Your task to perform on an android device: Show me popular videos on Youtube Image 0: 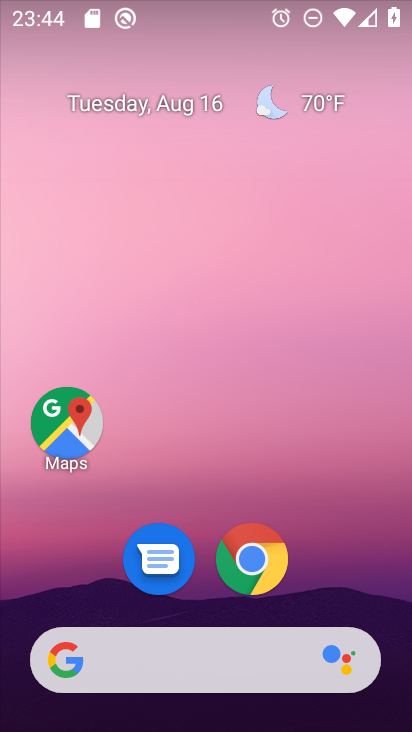
Step 0: drag from (174, 665) to (236, 176)
Your task to perform on an android device: Show me popular videos on Youtube Image 1: 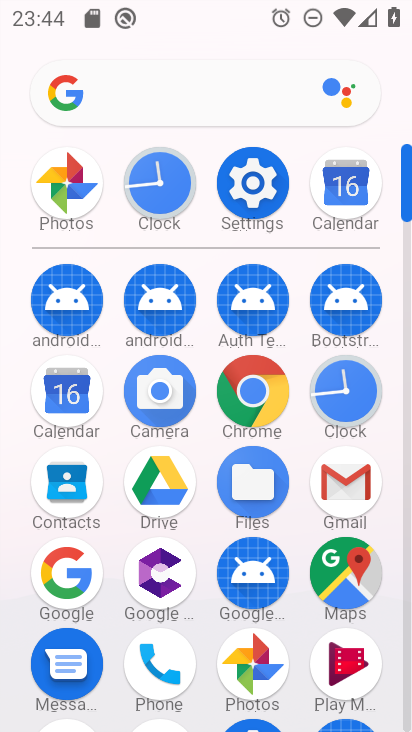
Step 1: drag from (201, 619) to (212, 290)
Your task to perform on an android device: Show me popular videos on Youtube Image 2: 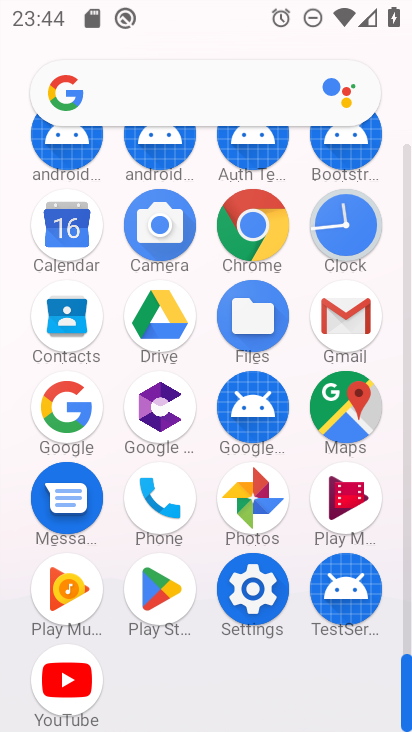
Step 2: click (67, 680)
Your task to perform on an android device: Show me popular videos on Youtube Image 3: 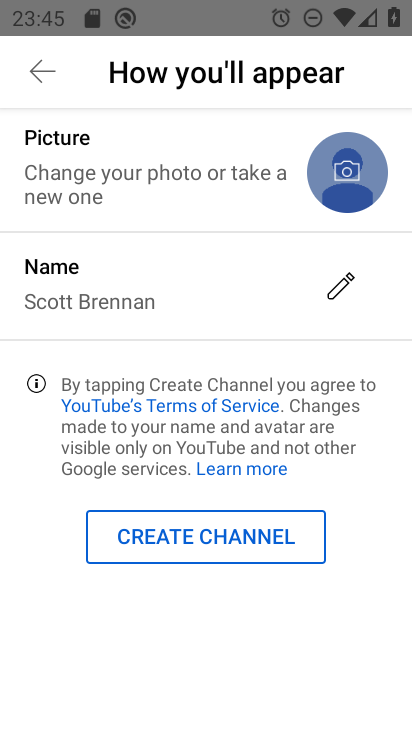
Step 3: press back button
Your task to perform on an android device: Show me popular videos on Youtube Image 4: 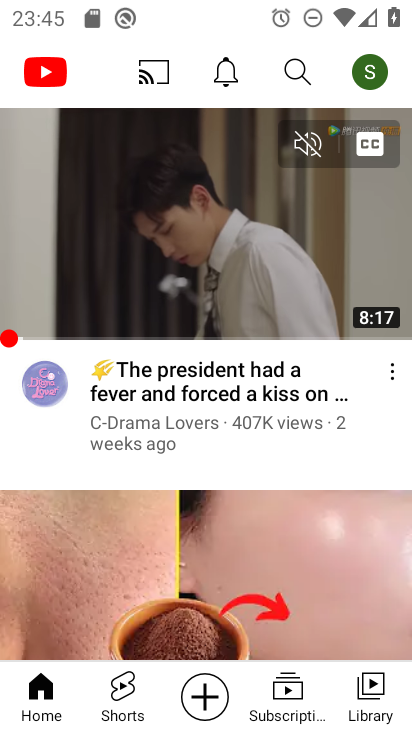
Step 4: click (291, 77)
Your task to perform on an android device: Show me popular videos on Youtube Image 5: 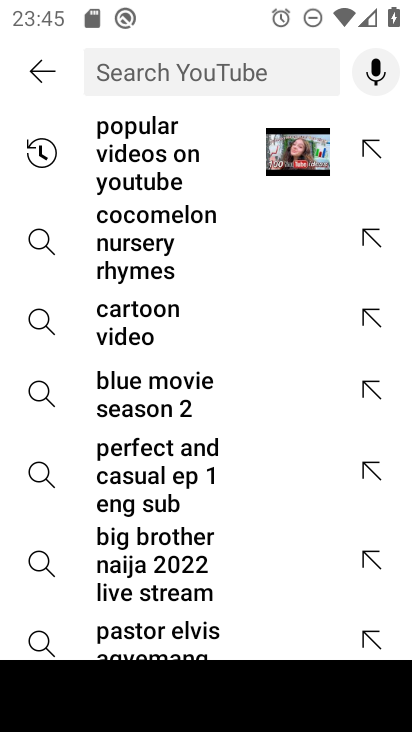
Step 5: click (150, 164)
Your task to perform on an android device: Show me popular videos on Youtube Image 6: 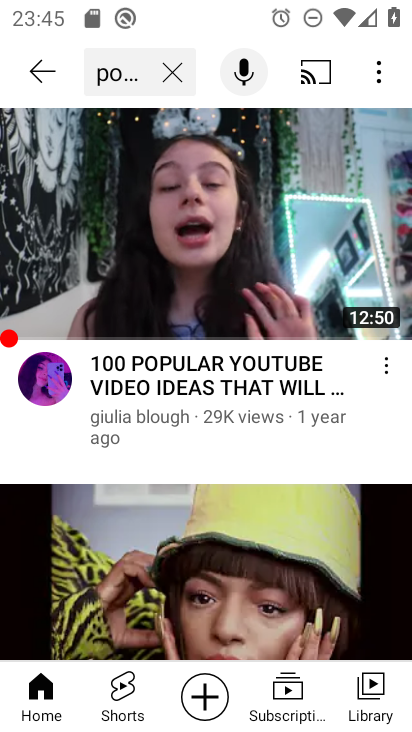
Step 6: task complete